Your task to perform on an android device: see tabs open on other devices in the chrome app Image 0: 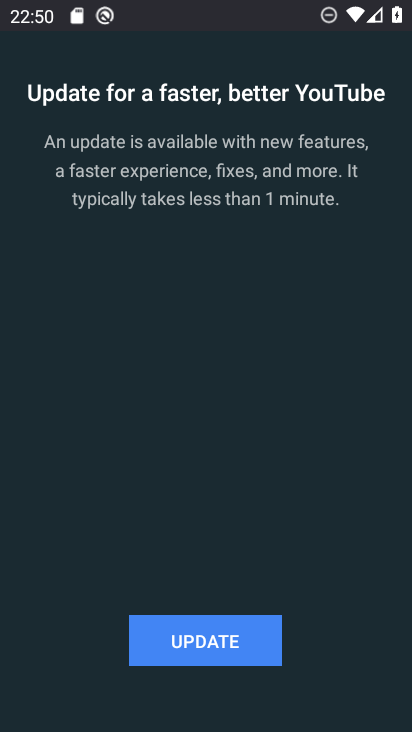
Step 0: press home button
Your task to perform on an android device: see tabs open on other devices in the chrome app Image 1: 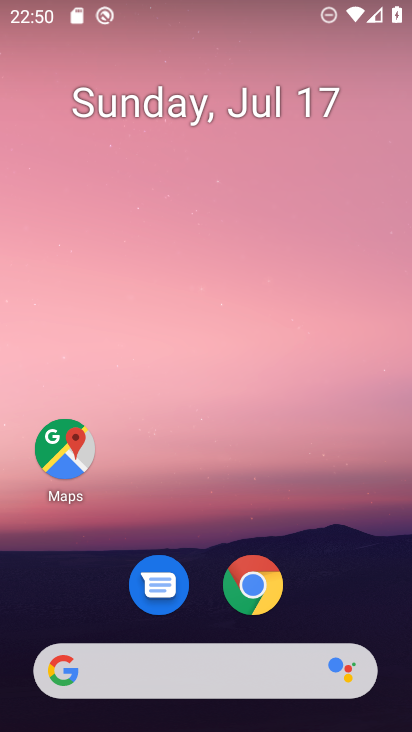
Step 1: click (257, 593)
Your task to perform on an android device: see tabs open on other devices in the chrome app Image 2: 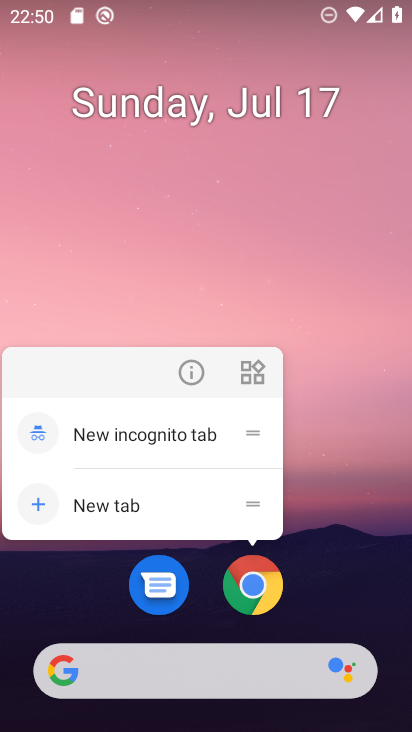
Step 2: click (251, 591)
Your task to perform on an android device: see tabs open on other devices in the chrome app Image 3: 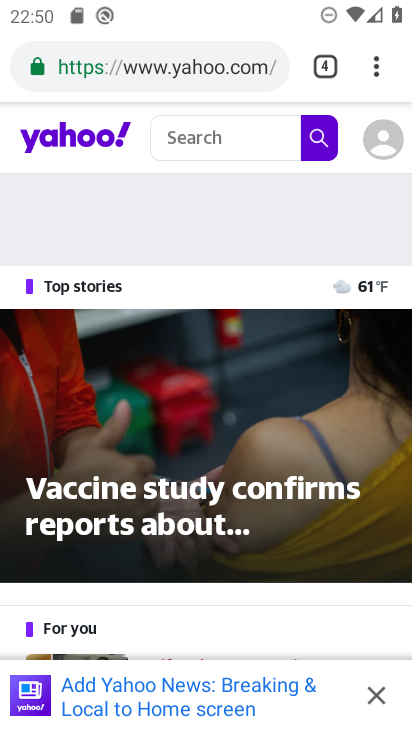
Step 3: task complete